Your task to perform on an android device: change alarm snooze length Image 0: 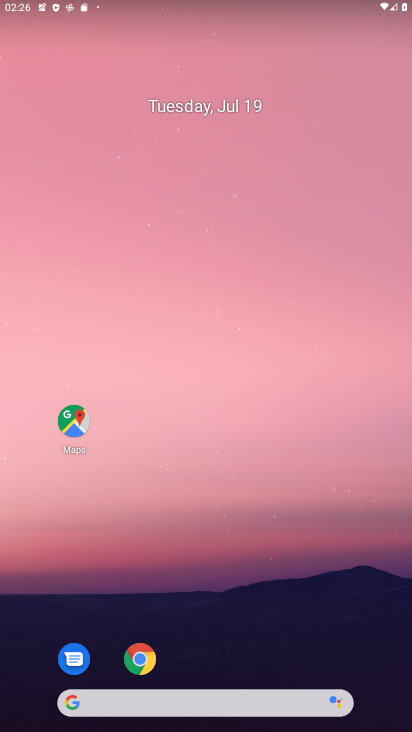
Step 0: press home button
Your task to perform on an android device: change alarm snooze length Image 1: 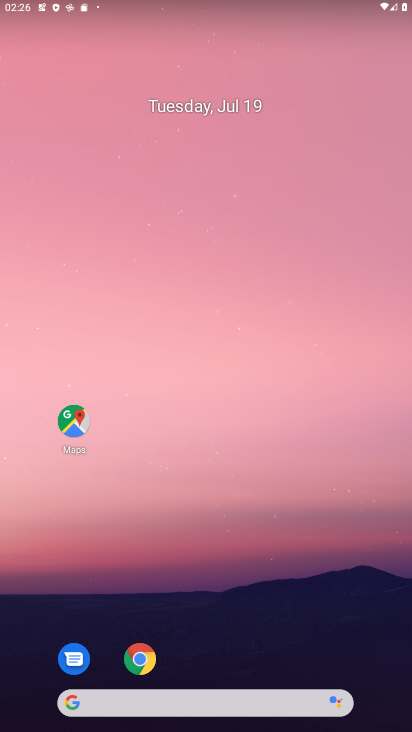
Step 1: drag from (198, 710) to (330, 0)
Your task to perform on an android device: change alarm snooze length Image 2: 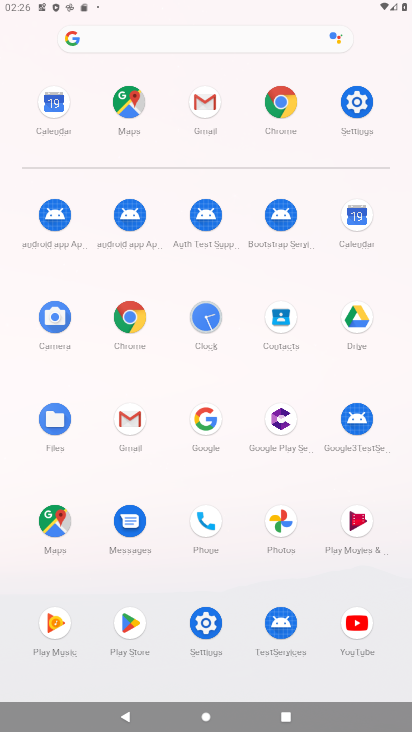
Step 2: click (213, 347)
Your task to perform on an android device: change alarm snooze length Image 3: 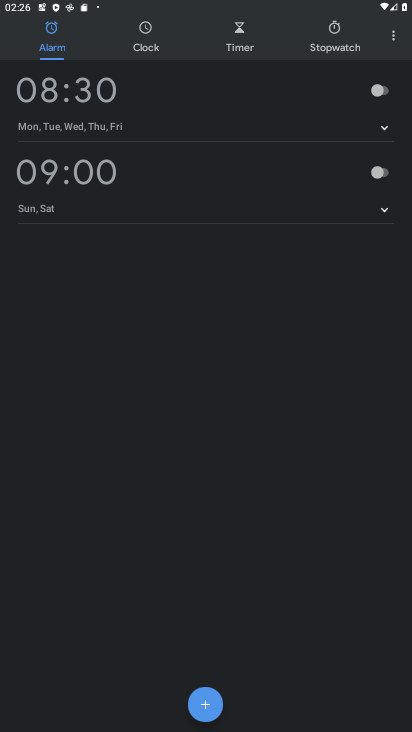
Step 3: click (383, 32)
Your task to perform on an android device: change alarm snooze length Image 4: 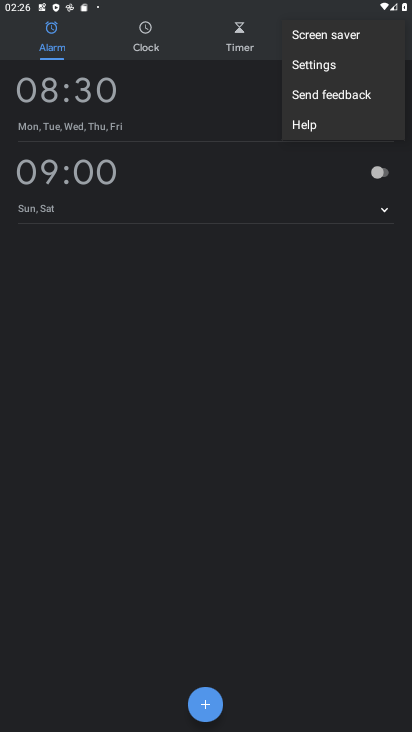
Step 4: click (308, 71)
Your task to perform on an android device: change alarm snooze length Image 5: 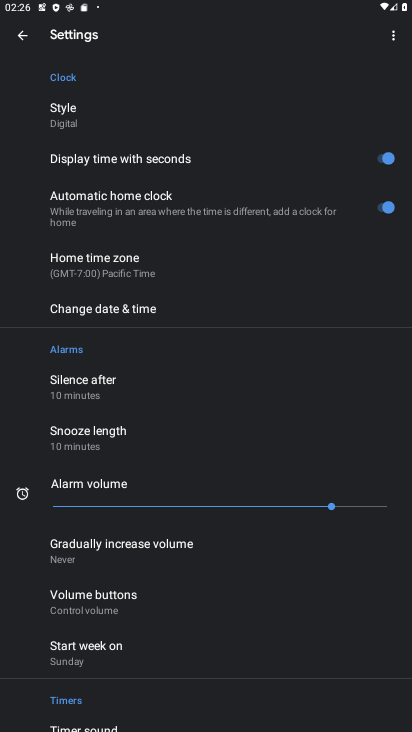
Step 5: drag from (180, 595) to (208, 267)
Your task to perform on an android device: change alarm snooze length Image 6: 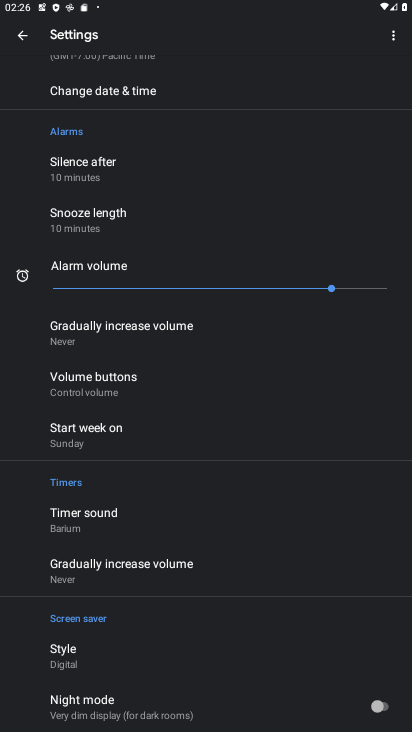
Step 6: drag from (123, 565) to (139, 505)
Your task to perform on an android device: change alarm snooze length Image 7: 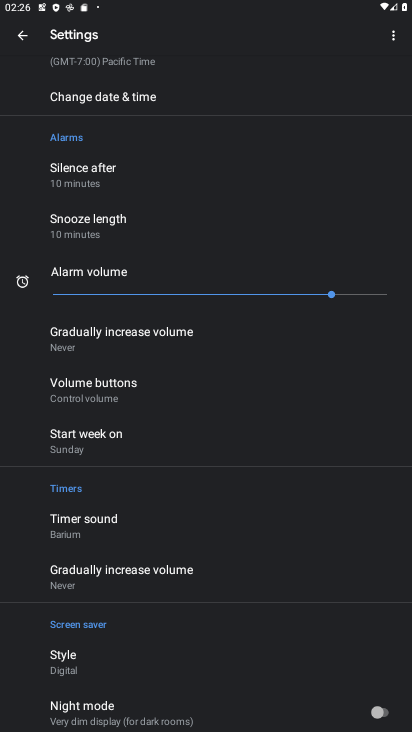
Step 7: click (119, 234)
Your task to perform on an android device: change alarm snooze length Image 8: 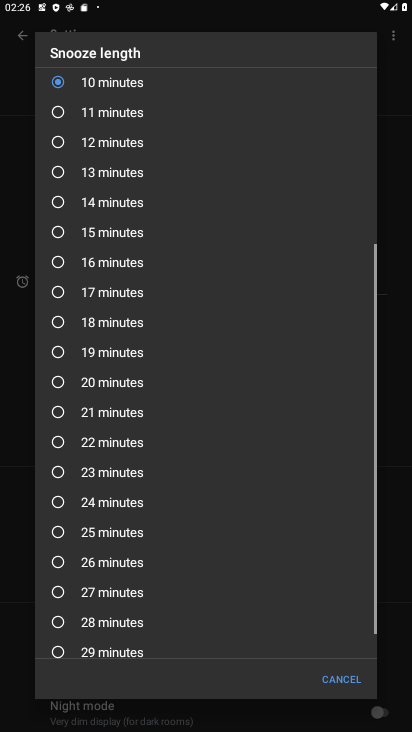
Step 8: click (119, 234)
Your task to perform on an android device: change alarm snooze length Image 9: 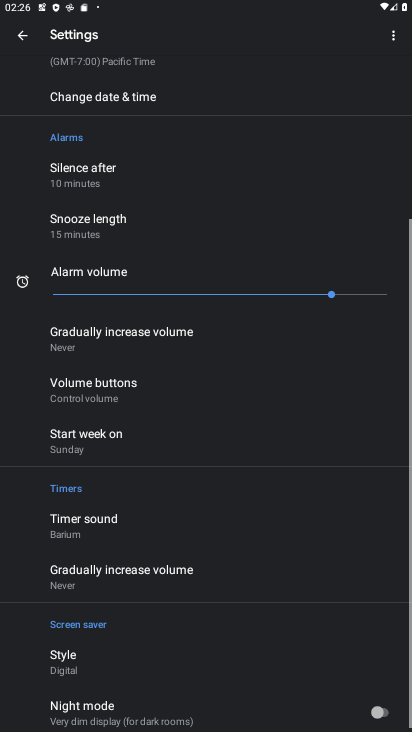
Step 9: task complete